Your task to perform on an android device: toggle priority inbox in the gmail app Image 0: 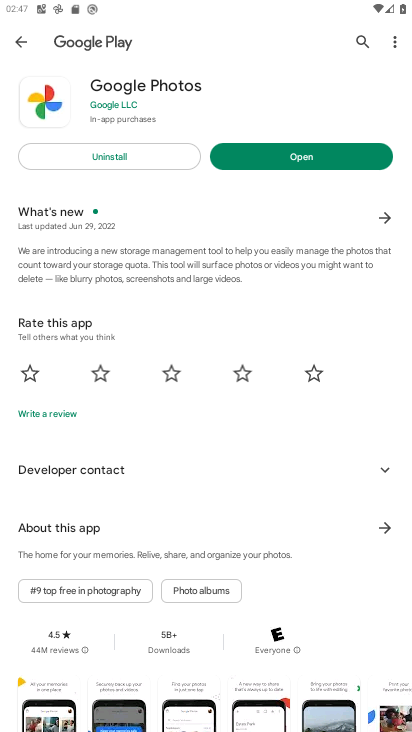
Step 0: press home button
Your task to perform on an android device: toggle priority inbox in the gmail app Image 1: 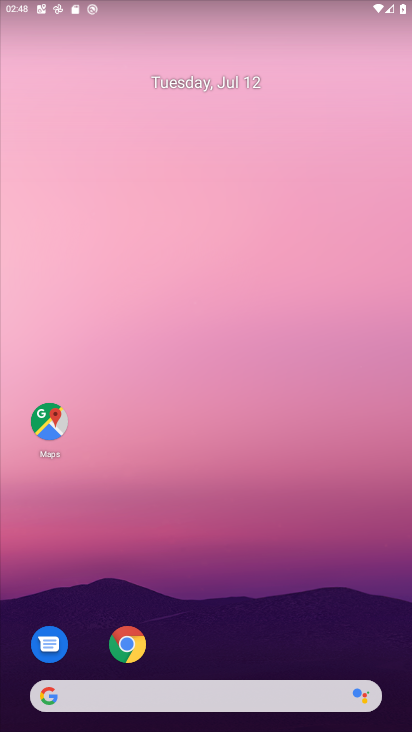
Step 1: drag from (263, 674) to (219, 68)
Your task to perform on an android device: toggle priority inbox in the gmail app Image 2: 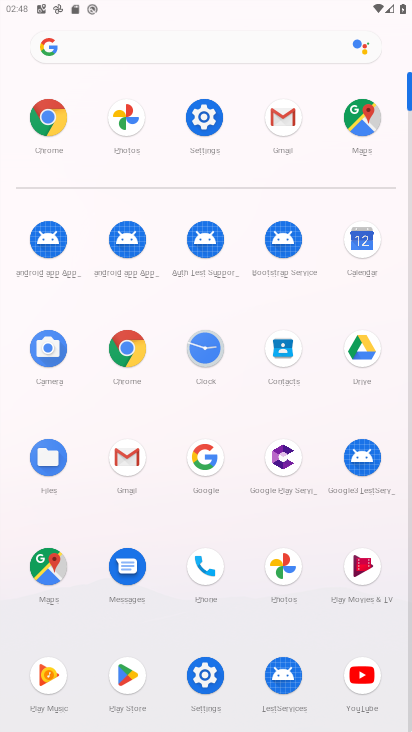
Step 2: click (102, 457)
Your task to perform on an android device: toggle priority inbox in the gmail app Image 3: 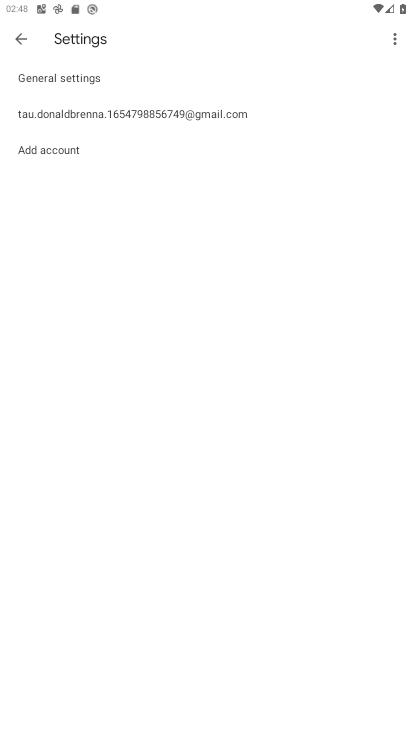
Step 3: click (179, 113)
Your task to perform on an android device: toggle priority inbox in the gmail app Image 4: 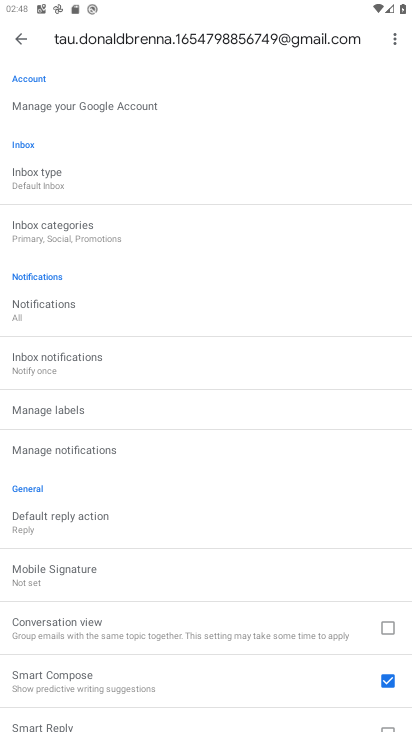
Step 4: click (58, 181)
Your task to perform on an android device: toggle priority inbox in the gmail app Image 5: 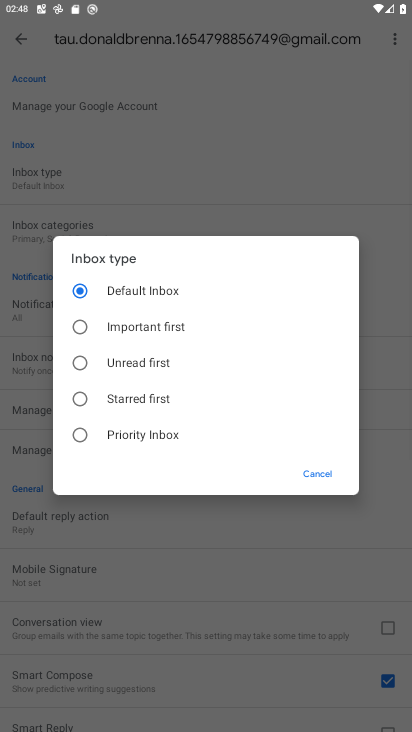
Step 5: click (124, 427)
Your task to perform on an android device: toggle priority inbox in the gmail app Image 6: 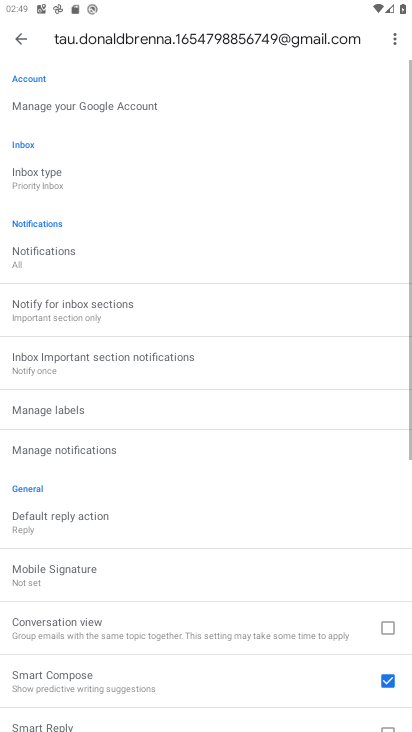
Step 6: task complete